Your task to perform on an android device: Open the calendar and show me this week's events? Image 0: 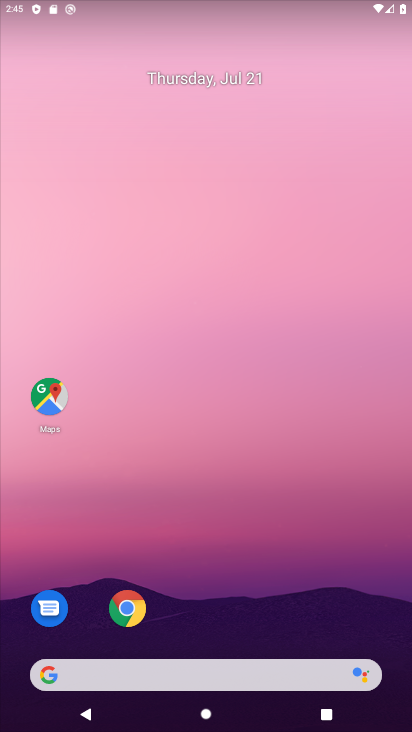
Step 0: drag from (203, 669) to (170, 85)
Your task to perform on an android device: Open the calendar and show me this week's events? Image 1: 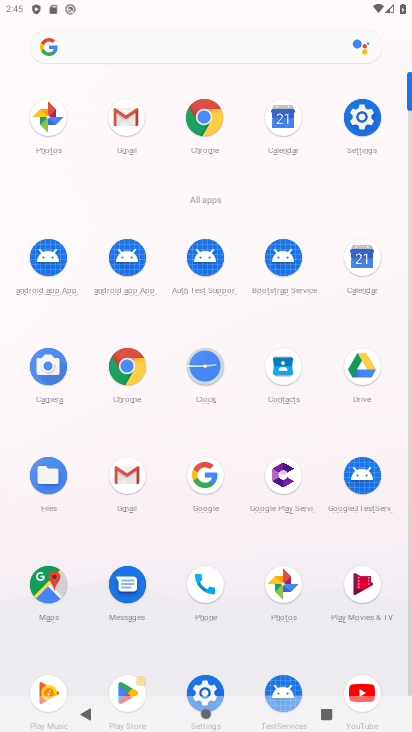
Step 1: click (383, 265)
Your task to perform on an android device: Open the calendar and show me this week's events? Image 2: 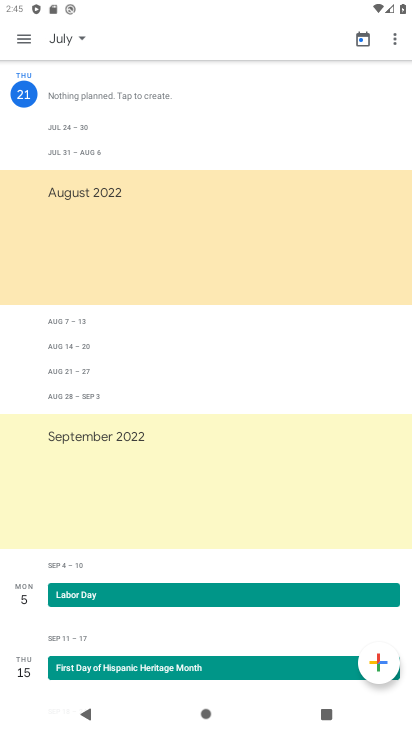
Step 2: click (24, 36)
Your task to perform on an android device: Open the calendar and show me this week's events? Image 3: 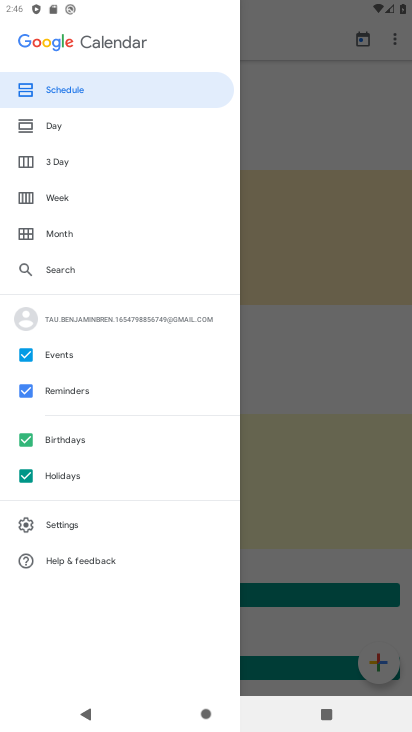
Step 3: click (87, 198)
Your task to perform on an android device: Open the calendar and show me this week's events? Image 4: 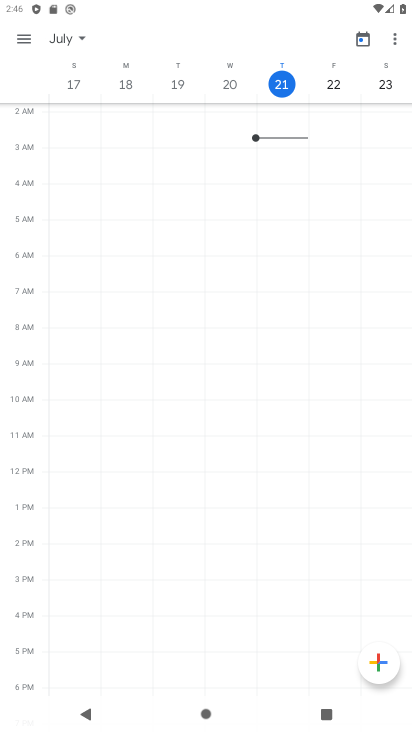
Step 4: task complete